Your task to perform on an android device: Search for "razer deathadder" on newegg.com, select the first entry, add it to the cart, then select checkout. Image 0: 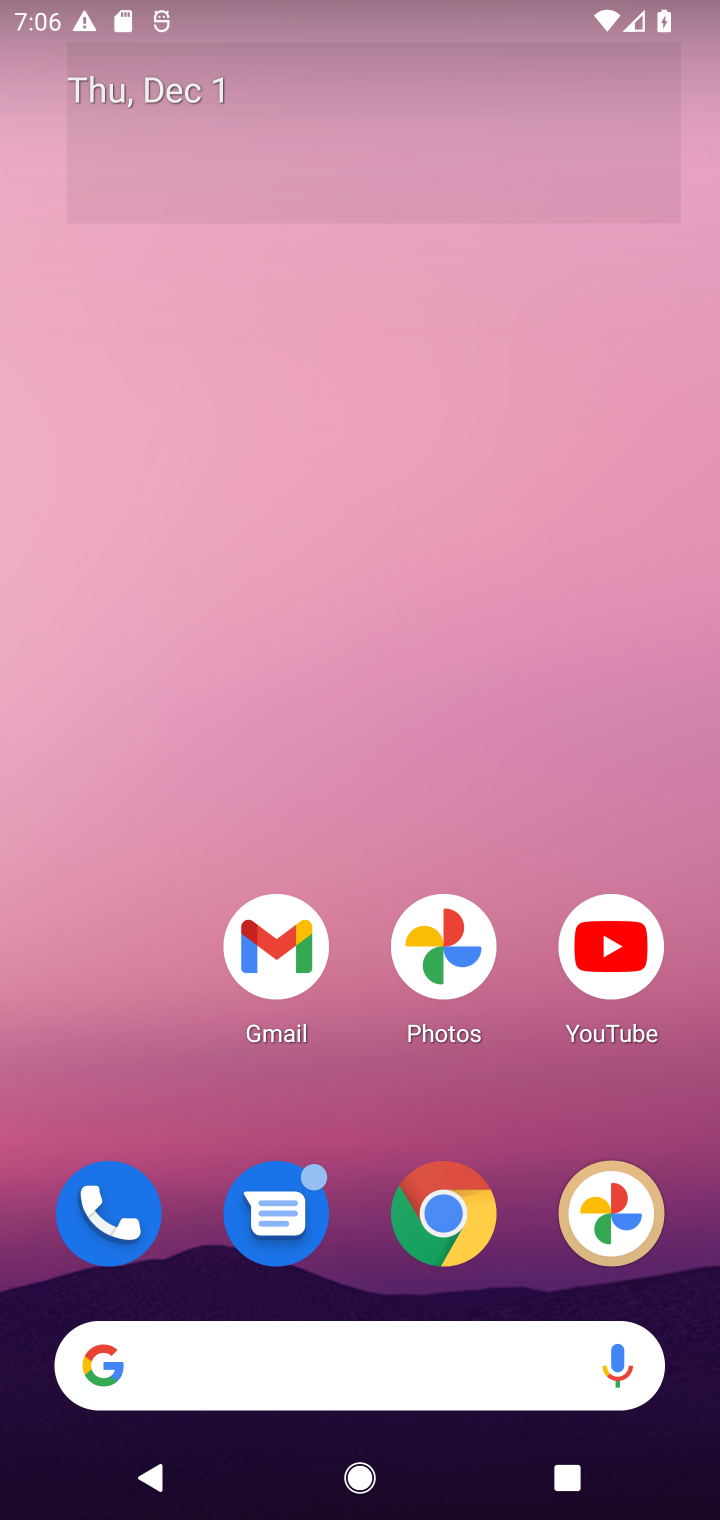
Step 0: task complete